Your task to perform on an android device: What's on the menu at In-N-Out? Image 0: 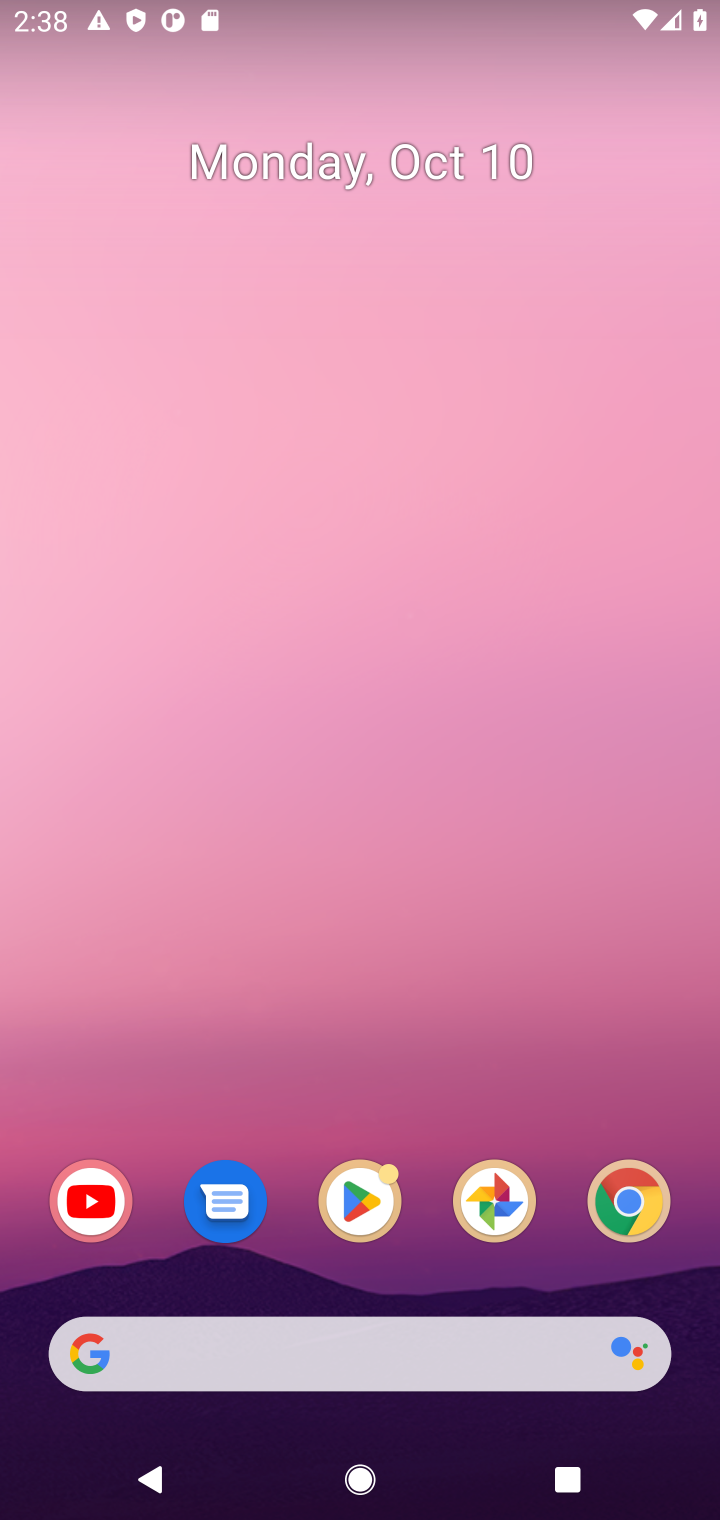
Step 0: click (402, 1352)
Your task to perform on an android device: What's on the menu at In-N-Out? Image 1: 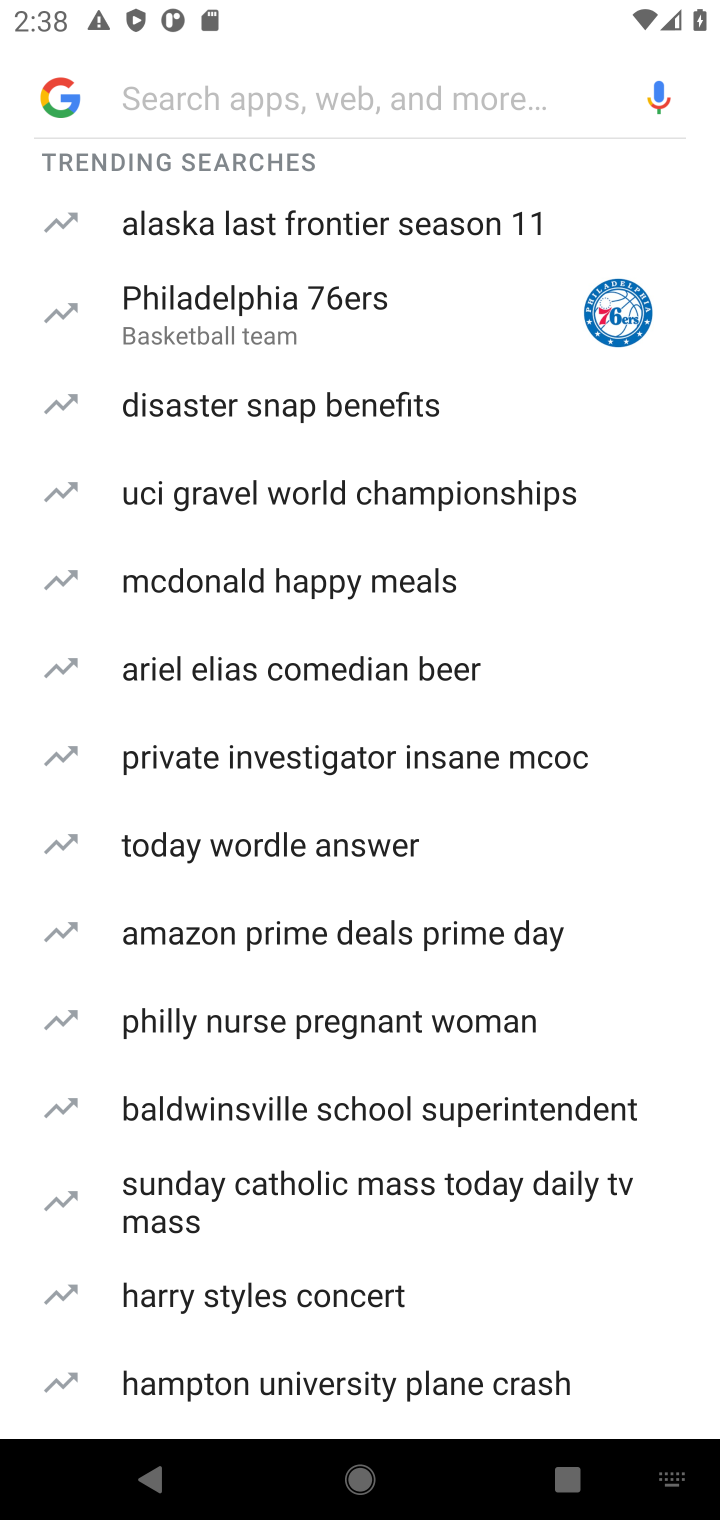
Step 1: type "menu at In-N-Out?"
Your task to perform on an android device: What's on the menu at In-N-Out? Image 2: 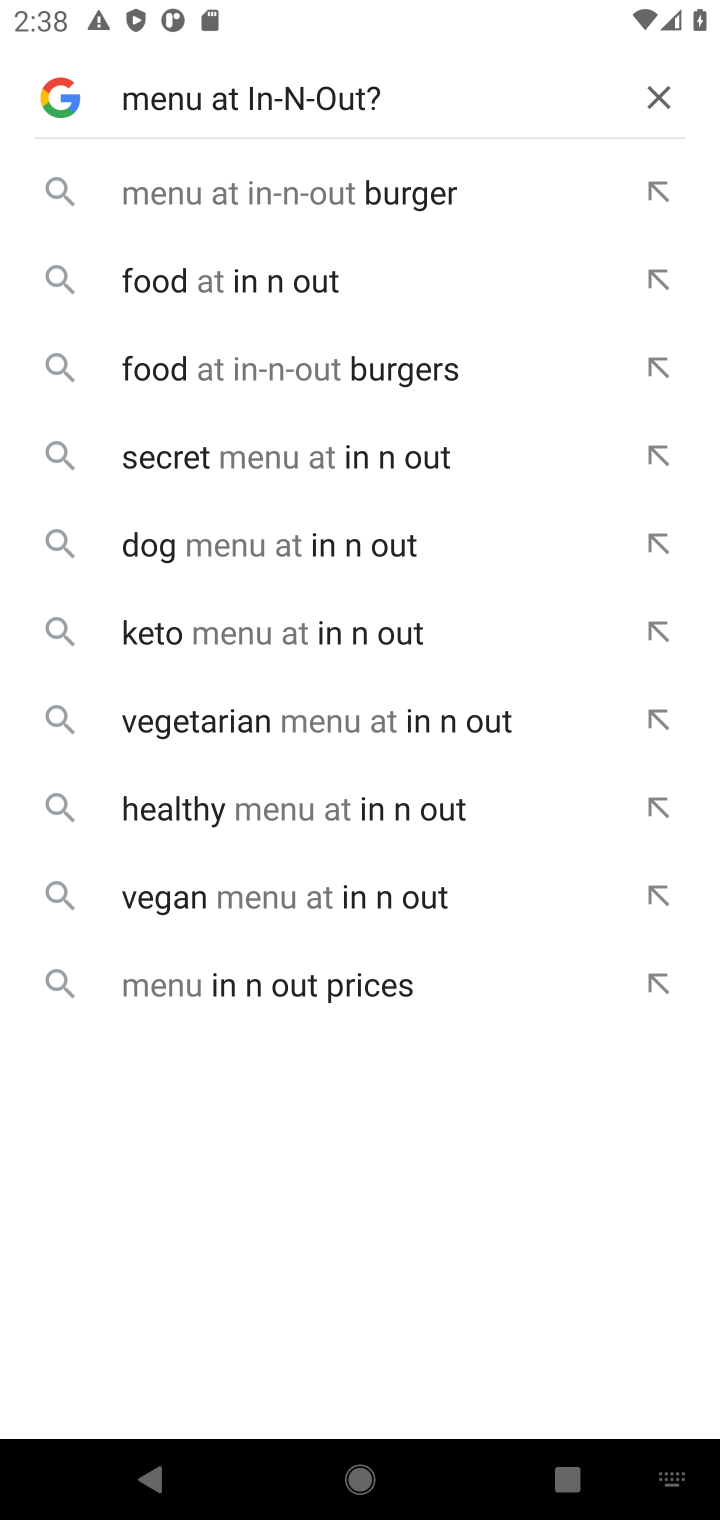
Step 2: type ""
Your task to perform on an android device: What's on the menu at In-N-Out? Image 3: 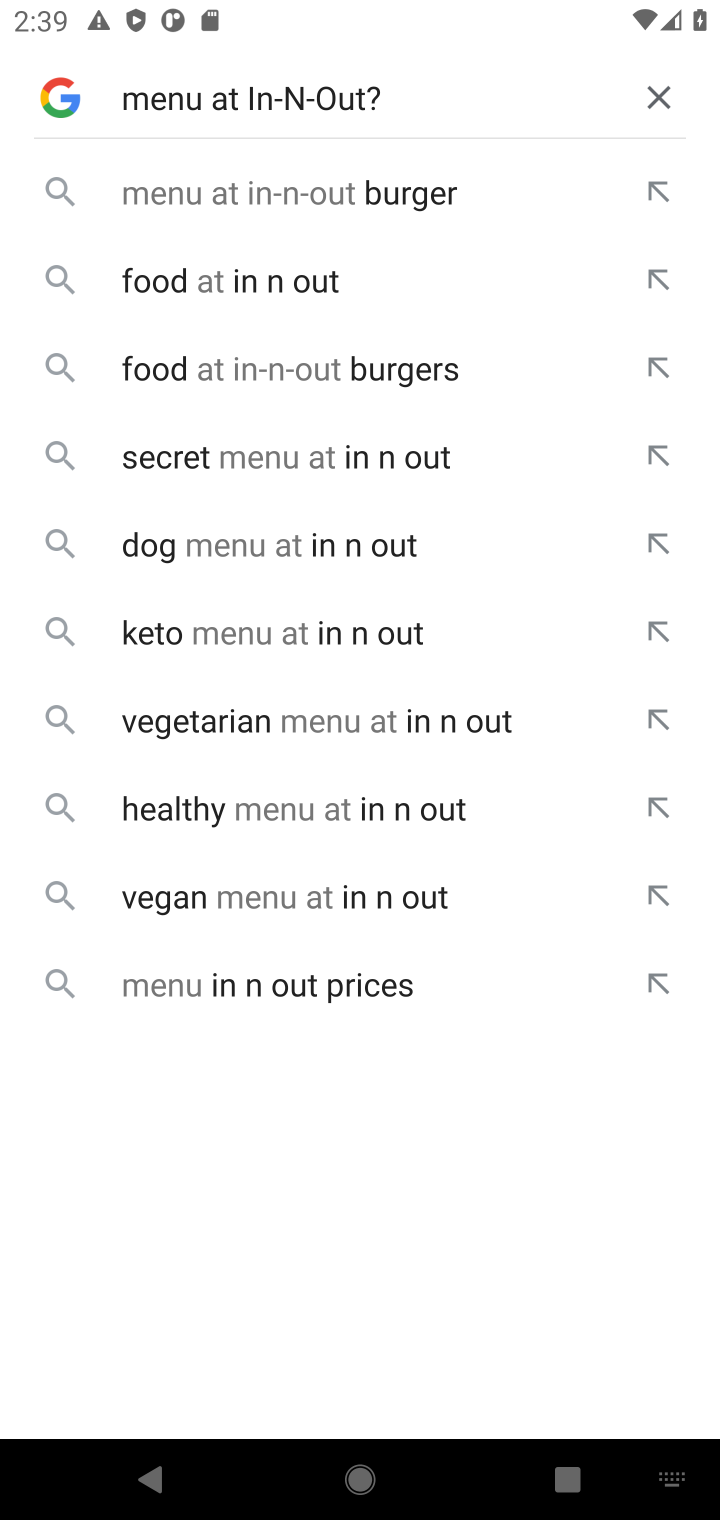
Step 3: press enter
Your task to perform on an android device: What's on the menu at In-N-Out? Image 4: 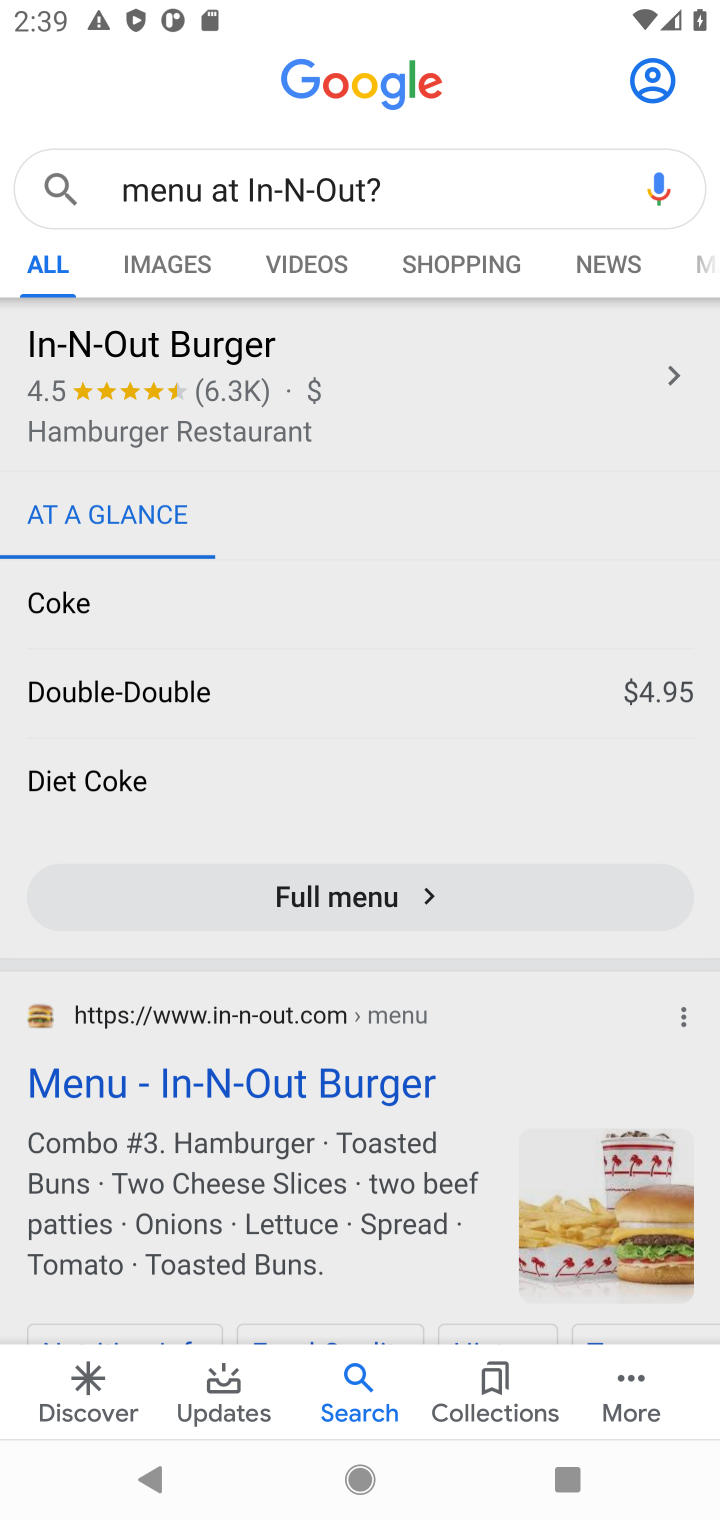
Step 4: click (260, 1079)
Your task to perform on an android device: What's on the menu at In-N-Out? Image 5: 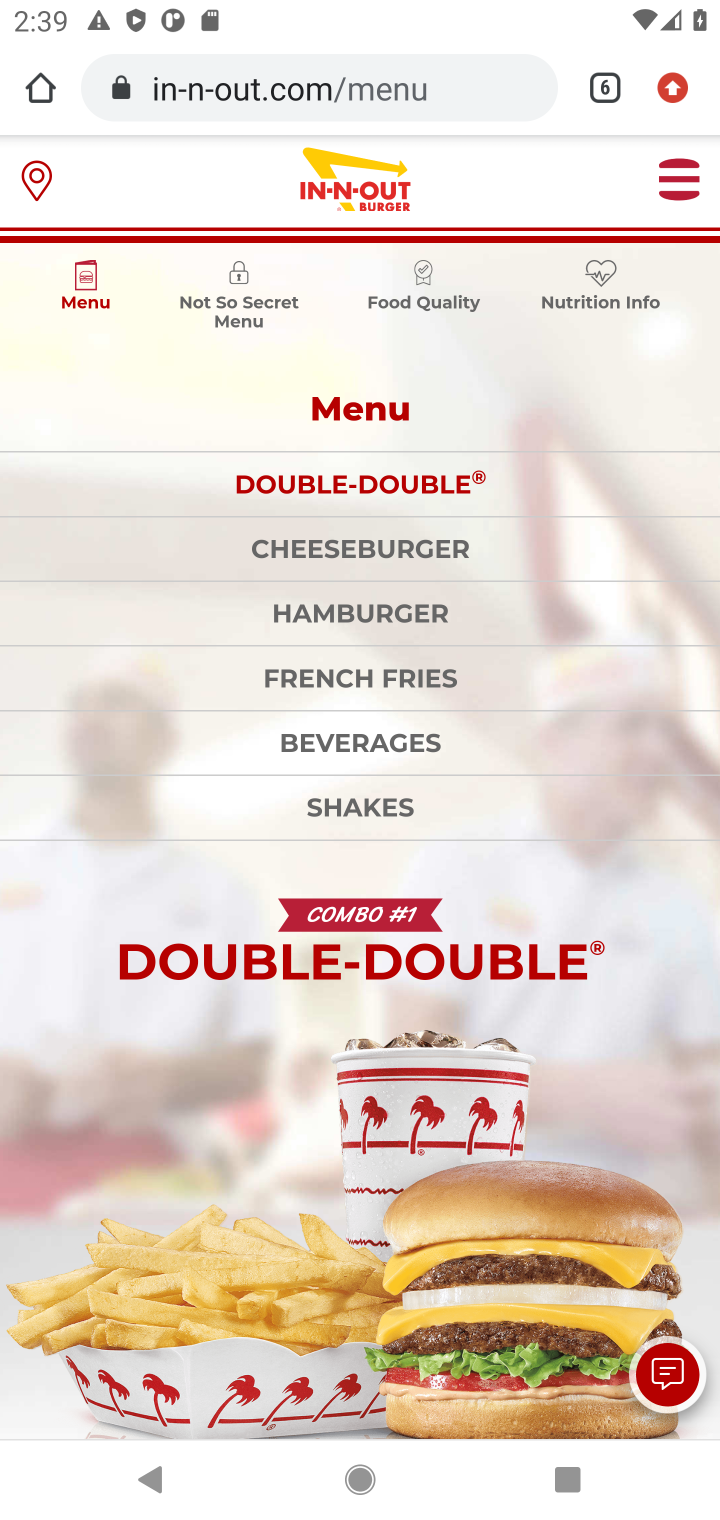
Step 5: task complete